Your task to perform on an android device: empty trash in the gmail app Image 0: 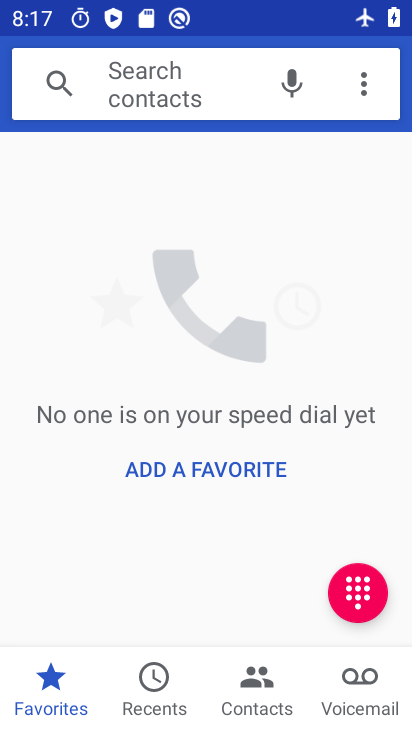
Step 0: press back button
Your task to perform on an android device: empty trash in the gmail app Image 1: 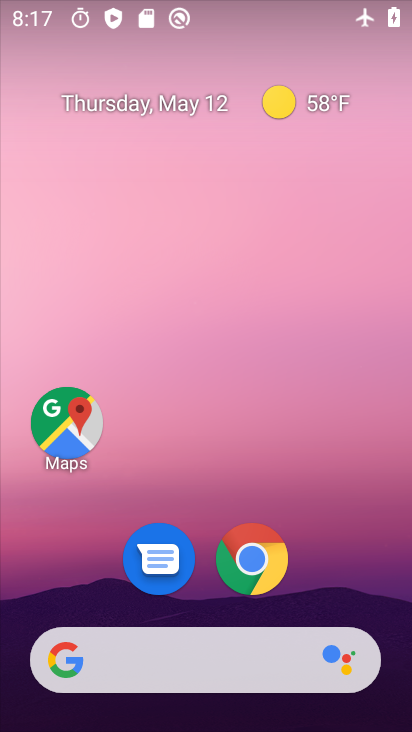
Step 1: drag from (328, 571) to (277, 107)
Your task to perform on an android device: empty trash in the gmail app Image 2: 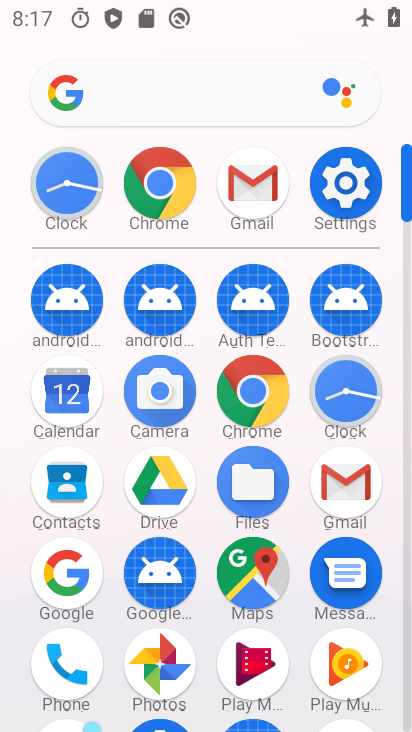
Step 2: click (252, 187)
Your task to perform on an android device: empty trash in the gmail app Image 3: 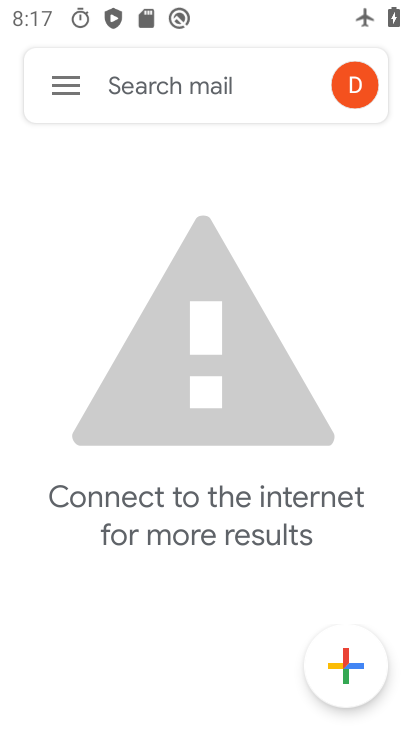
Step 3: click (67, 83)
Your task to perform on an android device: empty trash in the gmail app Image 4: 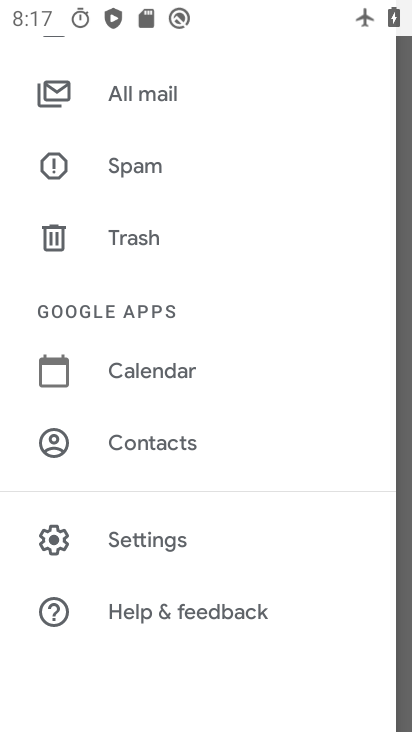
Step 4: click (132, 246)
Your task to perform on an android device: empty trash in the gmail app Image 5: 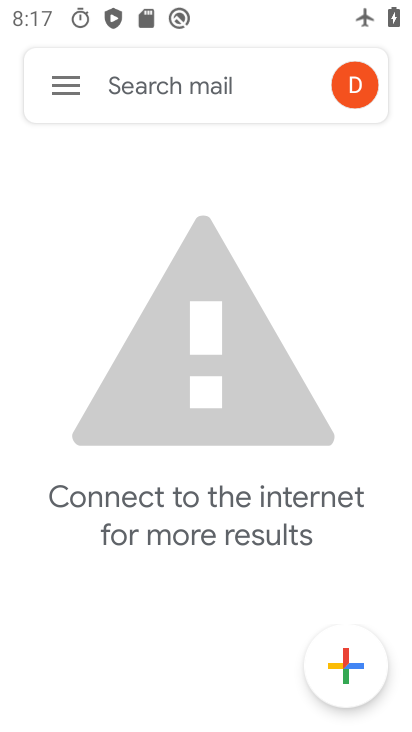
Step 5: task complete